Your task to perform on an android device: turn off data saver in the chrome app Image 0: 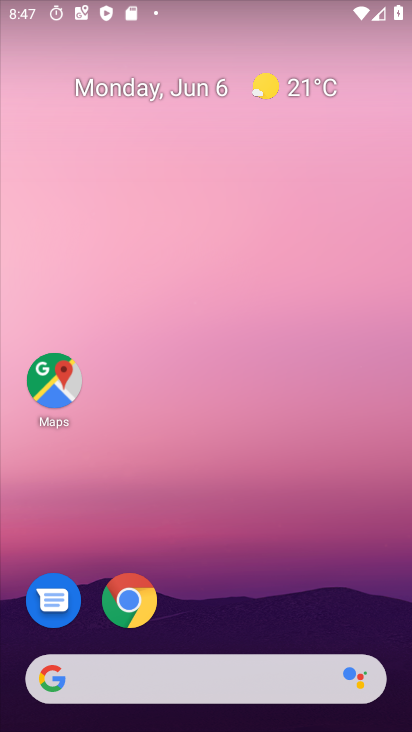
Step 0: drag from (221, 583) to (211, 16)
Your task to perform on an android device: turn off data saver in the chrome app Image 1: 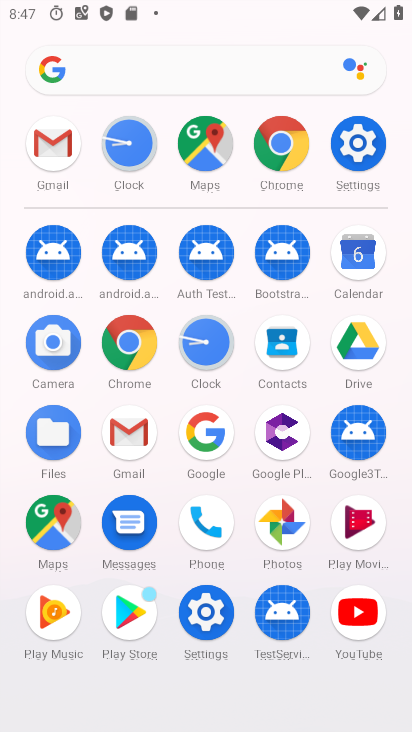
Step 1: click (125, 338)
Your task to perform on an android device: turn off data saver in the chrome app Image 2: 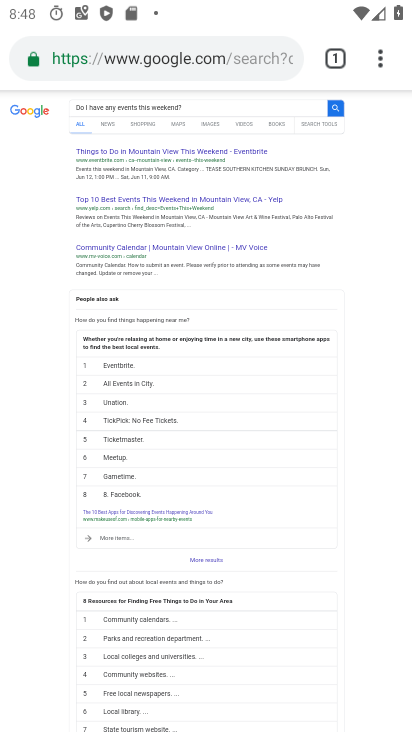
Step 2: drag from (379, 54) to (203, 610)
Your task to perform on an android device: turn off data saver in the chrome app Image 3: 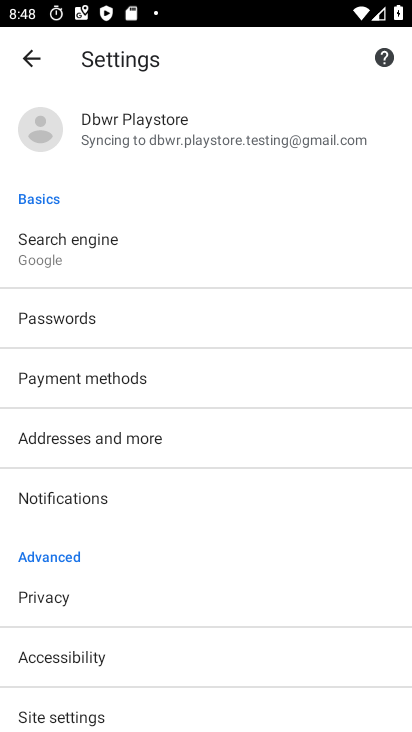
Step 3: drag from (208, 608) to (257, 131)
Your task to perform on an android device: turn off data saver in the chrome app Image 4: 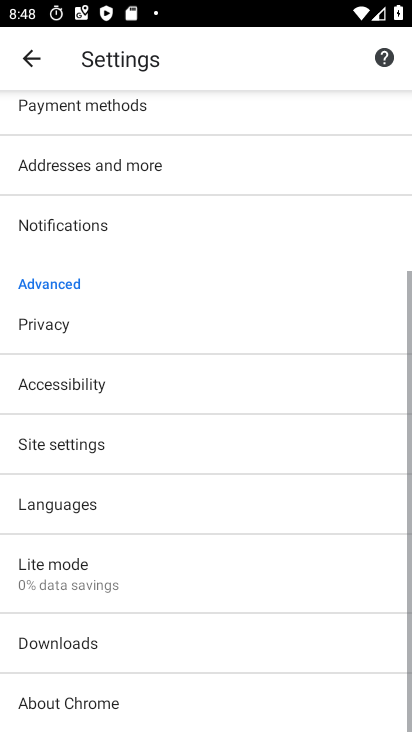
Step 4: click (95, 579)
Your task to perform on an android device: turn off data saver in the chrome app Image 5: 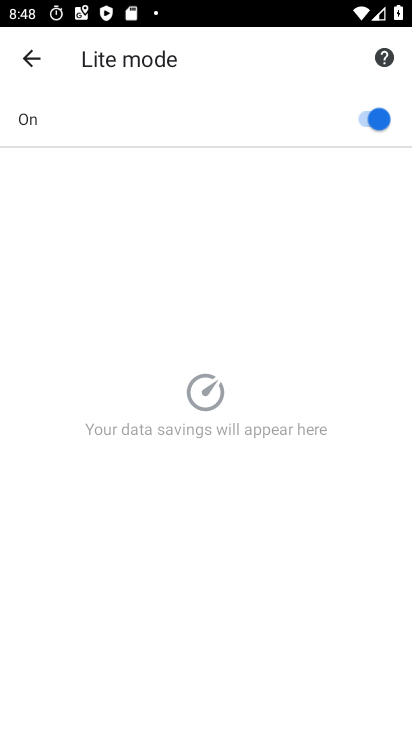
Step 5: click (367, 116)
Your task to perform on an android device: turn off data saver in the chrome app Image 6: 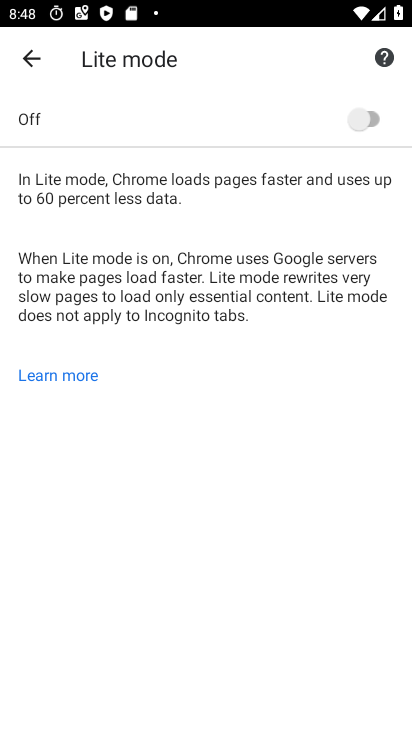
Step 6: task complete